Your task to perform on an android device: change your default location settings in chrome Image 0: 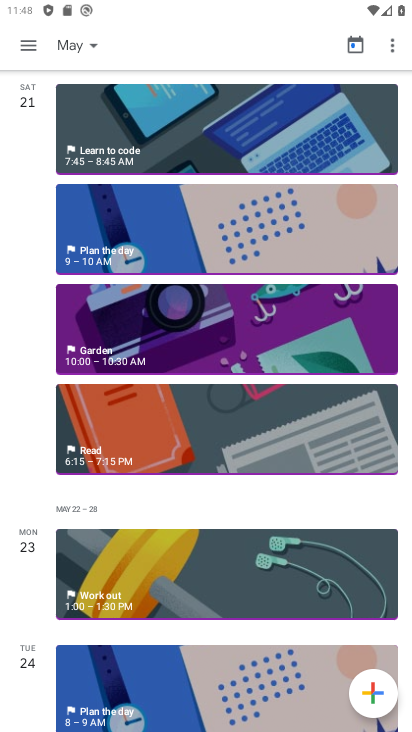
Step 0: press home button
Your task to perform on an android device: change your default location settings in chrome Image 1: 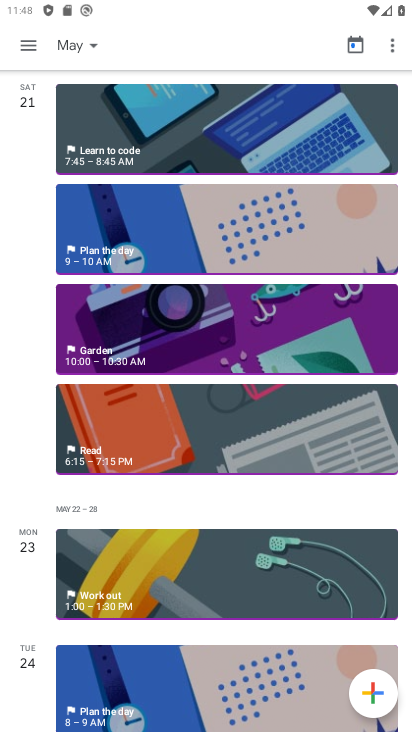
Step 1: press home button
Your task to perform on an android device: change your default location settings in chrome Image 2: 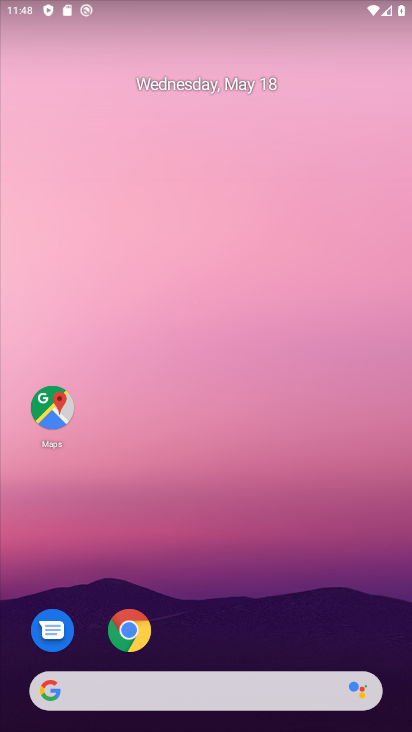
Step 2: drag from (173, 653) to (209, 120)
Your task to perform on an android device: change your default location settings in chrome Image 3: 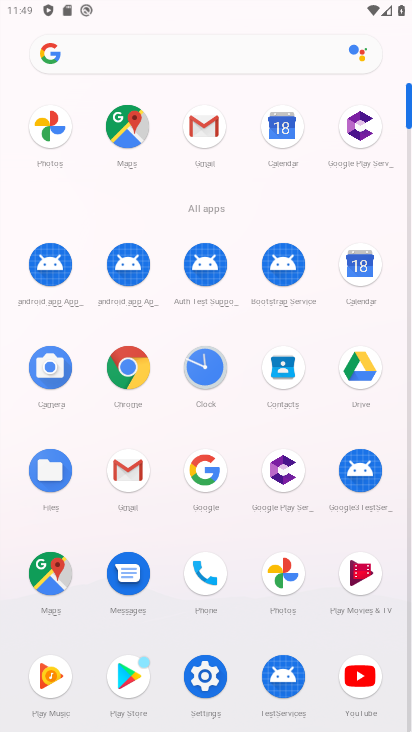
Step 3: click (129, 366)
Your task to perform on an android device: change your default location settings in chrome Image 4: 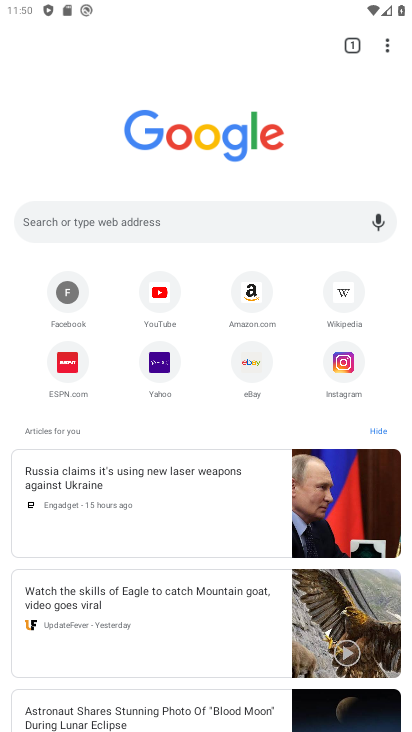
Step 4: click (392, 41)
Your task to perform on an android device: change your default location settings in chrome Image 5: 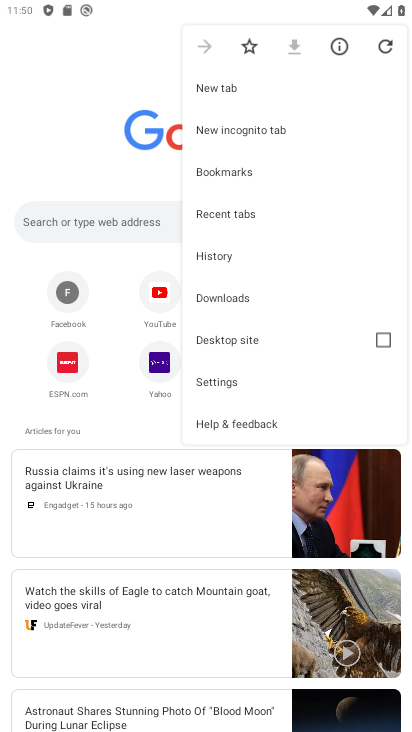
Step 5: click (247, 375)
Your task to perform on an android device: change your default location settings in chrome Image 6: 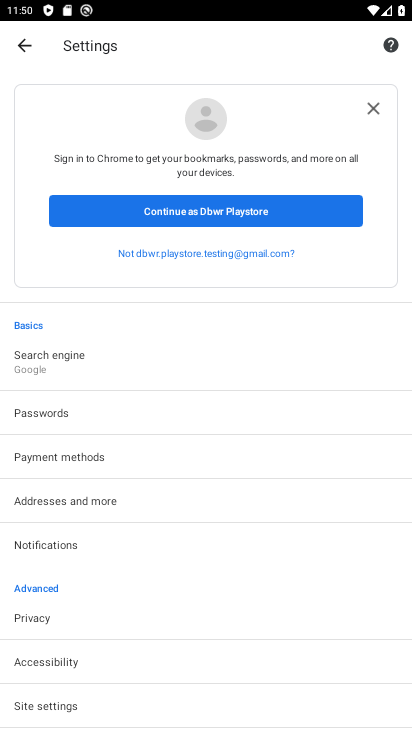
Step 6: drag from (110, 611) to (197, 321)
Your task to perform on an android device: change your default location settings in chrome Image 7: 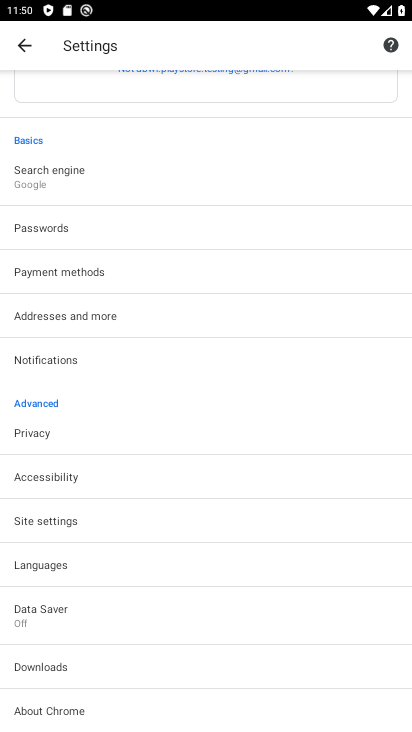
Step 7: click (77, 516)
Your task to perform on an android device: change your default location settings in chrome Image 8: 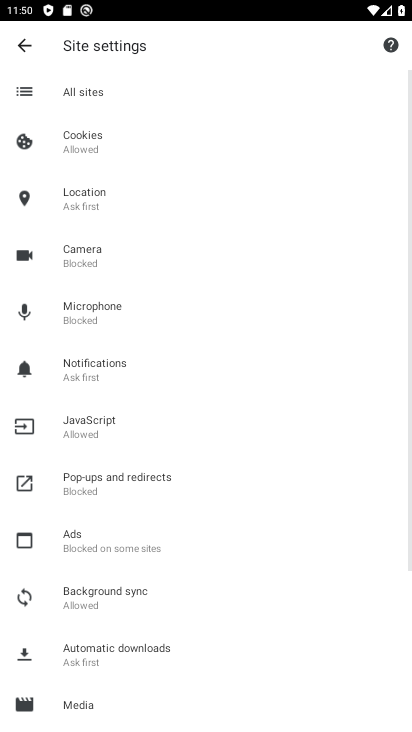
Step 8: click (116, 194)
Your task to perform on an android device: change your default location settings in chrome Image 9: 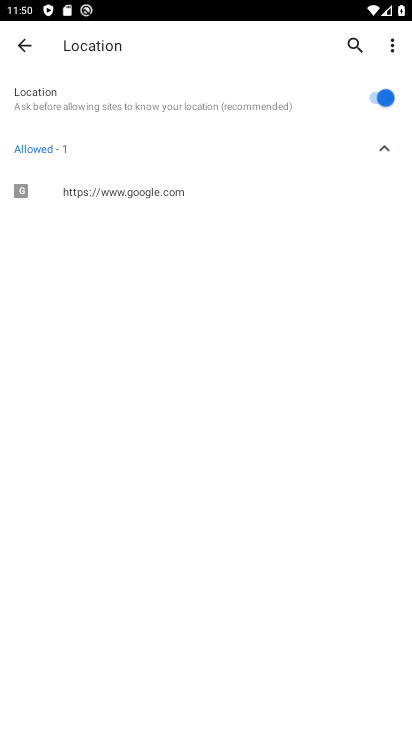
Step 9: click (392, 113)
Your task to perform on an android device: change your default location settings in chrome Image 10: 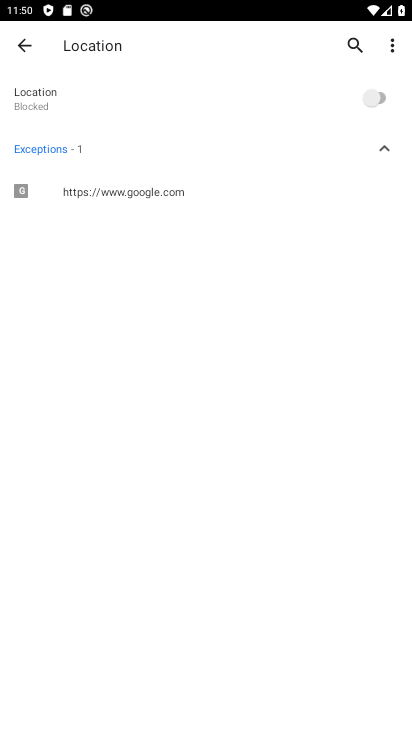
Step 10: task complete